Your task to perform on an android device: check android version Image 0: 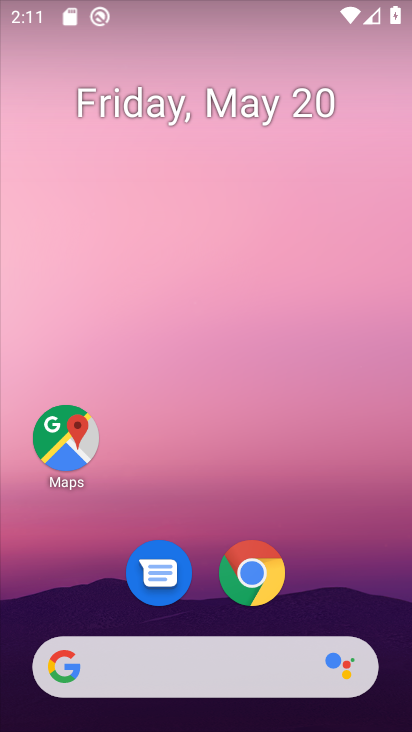
Step 0: drag from (201, 608) to (193, 212)
Your task to perform on an android device: check android version Image 1: 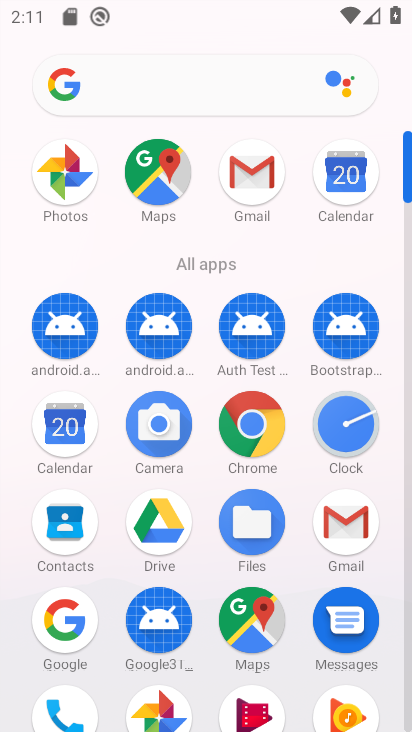
Step 1: drag from (187, 634) to (204, 354)
Your task to perform on an android device: check android version Image 2: 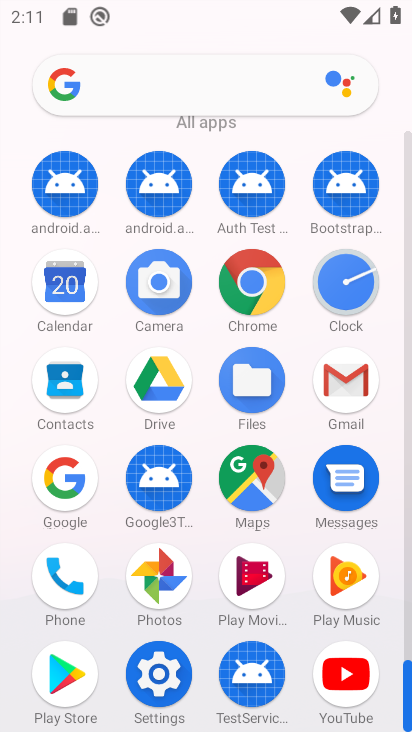
Step 2: click (167, 648)
Your task to perform on an android device: check android version Image 3: 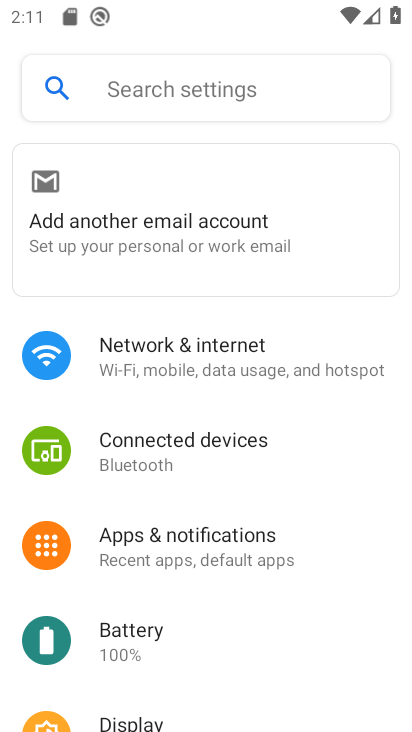
Step 3: task complete